Your task to perform on an android device: check storage Image 0: 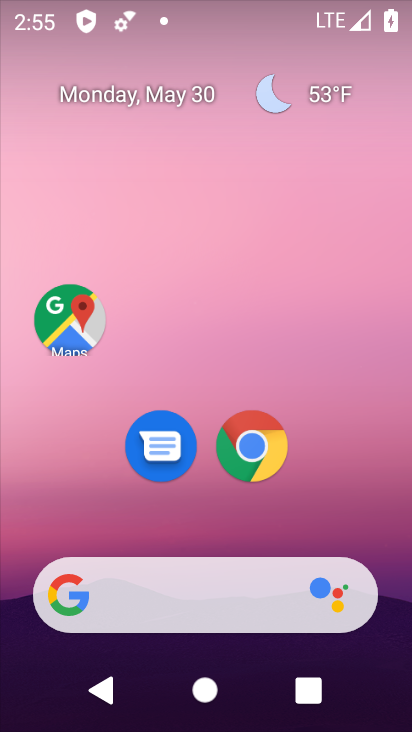
Step 0: drag from (327, 516) to (255, 136)
Your task to perform on an android device: check storage Image 1: 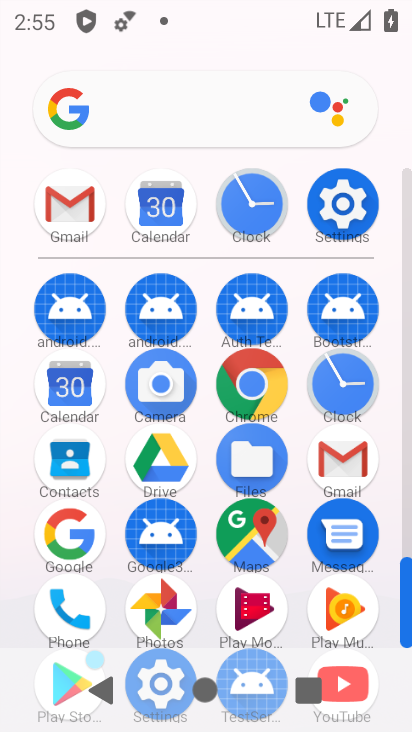
Step 1: click (340, 205)
Your task to perform on an android device: check storage Image 2: 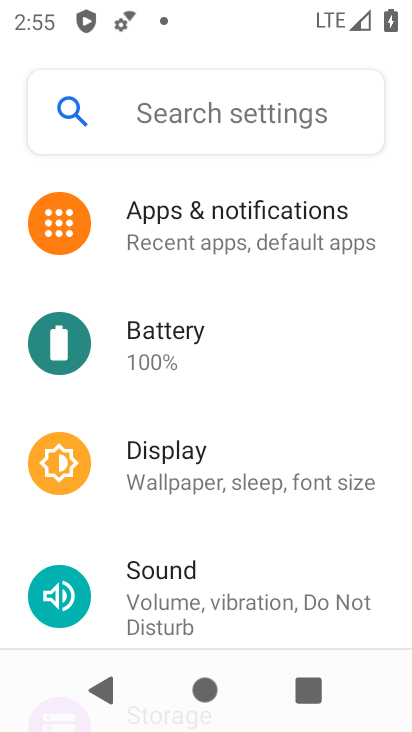
Step 2: drag from (256, 567) to (294, 391)
Your task to perform on an android device: check storage Image 3: 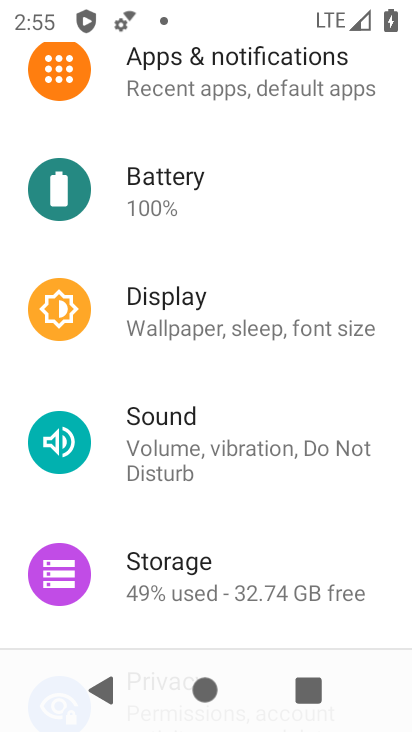
Step 3: drag from (248, 524) to (284, 448)
Your task to perform on an android device: check storage Image 4: 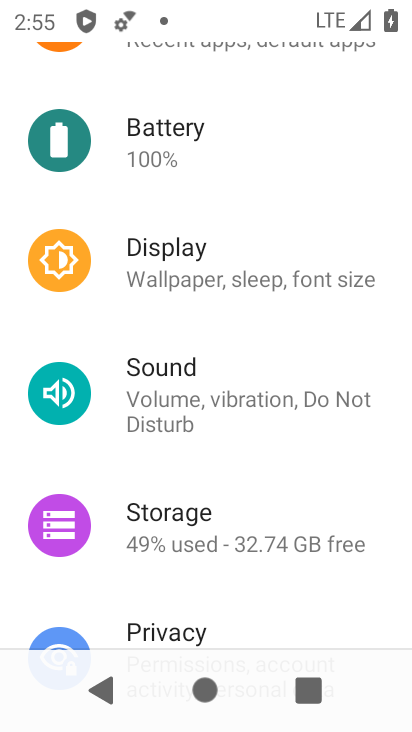
Step 4: click (227, 519)
Your task to perform on an android device: check storage Image 5: 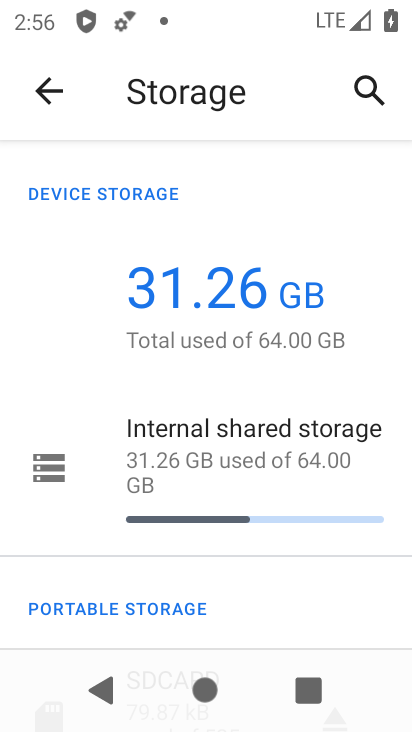
Step 5: task complete